Your task to perform on an android device: Go to Google maps Image 0: 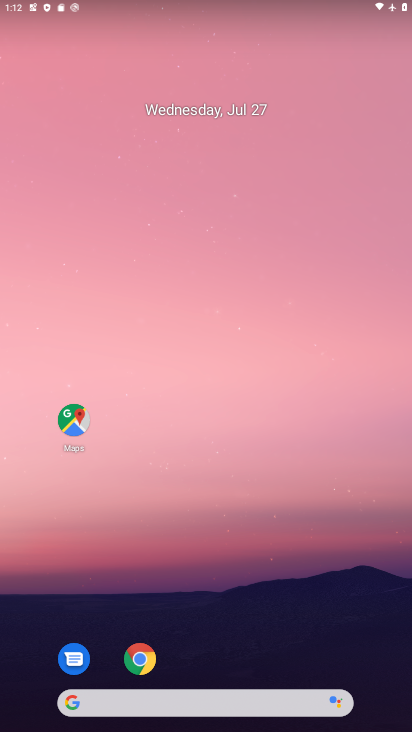
Step 0: drag from (271, 613) to (272, 125)
Your task to perform on an android device: Go to Google maps Image 1: 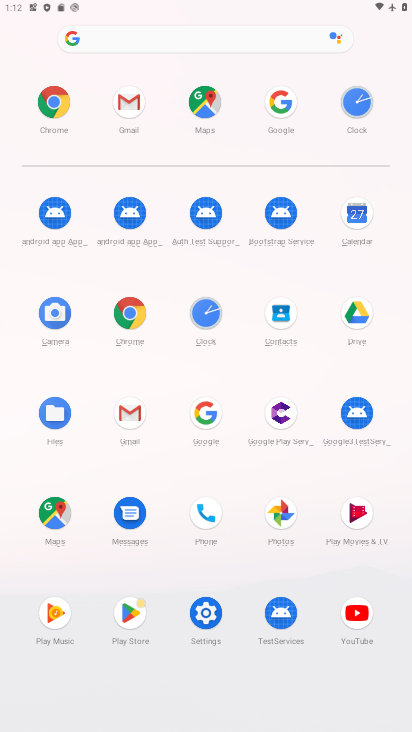
Step 1: click (39, 523)
Your task to perform on an android device: Go to Google maps Image 2: 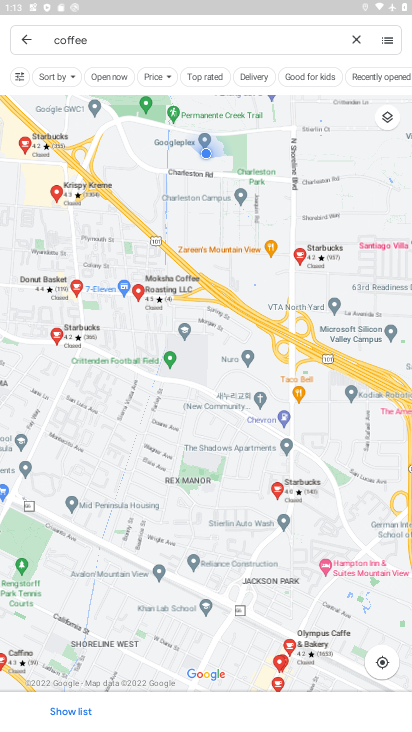
Step 2: task complete